Your task to perform on an android device: Open my contact list Image 0: 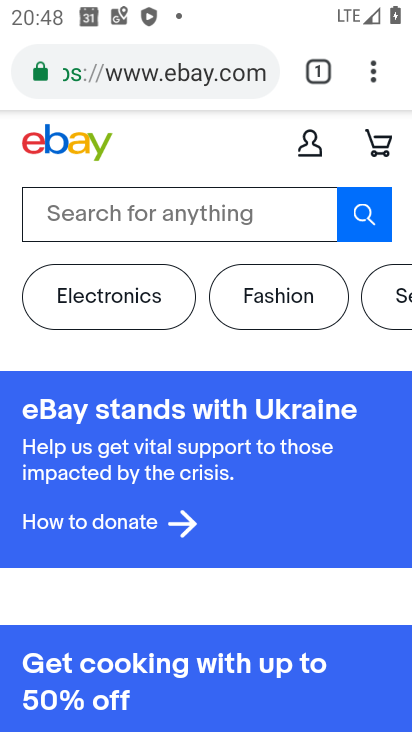
Step 0: press home button
Your task to perform on an android device: Open my contact list Image 1: 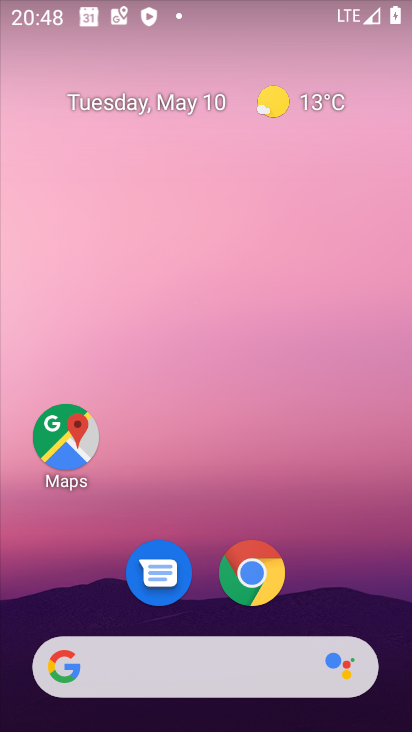
Step 1: drag from (376, 599) to (352, 26)
Your task to perform on an android device: Open my contact list Image 2: 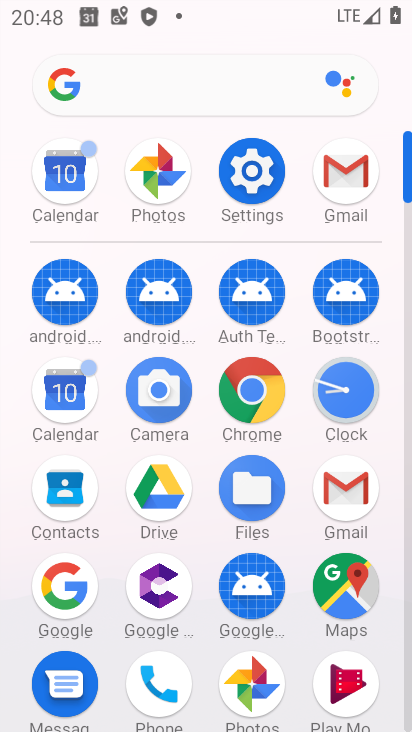
Step 2: click (76, 496)
Your task to perform on an android device: Open my contact list Image 3: 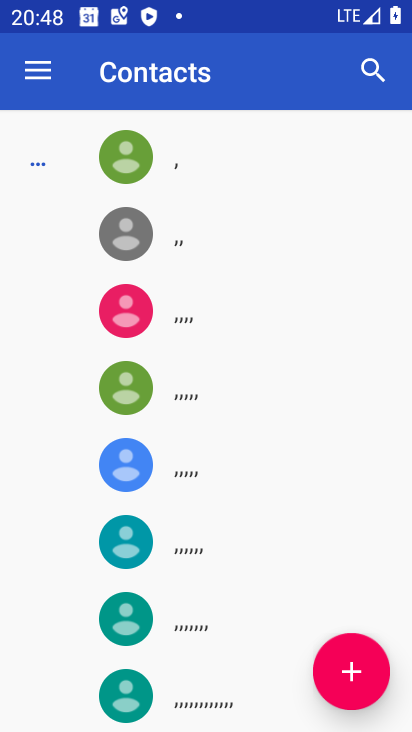
Step 3: task complete